Your task to perform on an android device: Do I have any events tomorrow? Image 0: 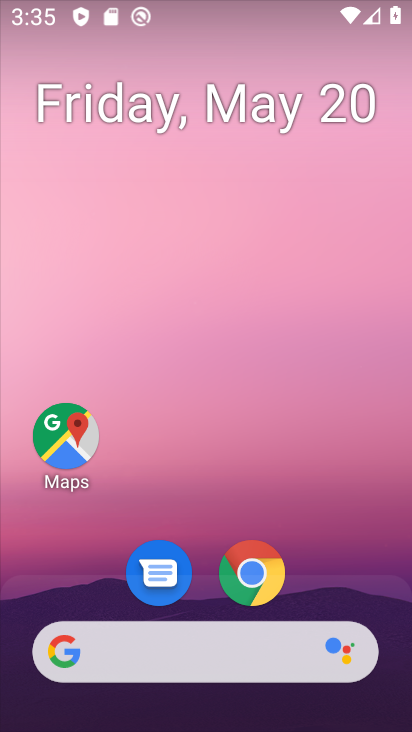
Step 0: drag from (342, 603) to (285, 100)
Your task to perform on an android device: Do I have any events tomorrow? Image 1: 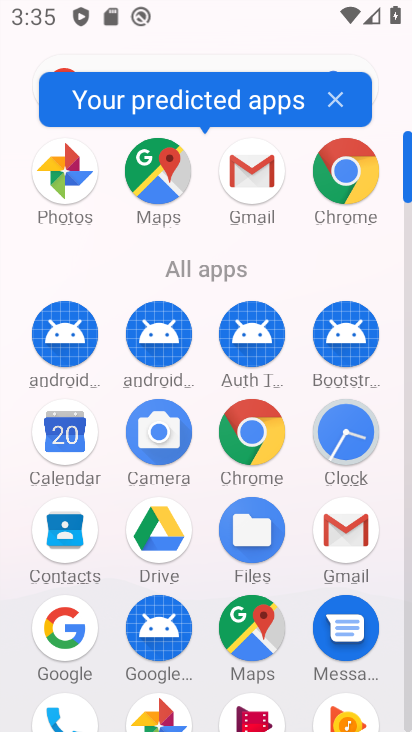
Step 1: click (71, 437)
Your task to perform on an android device: Do I have any events tomorrow? Image 2: 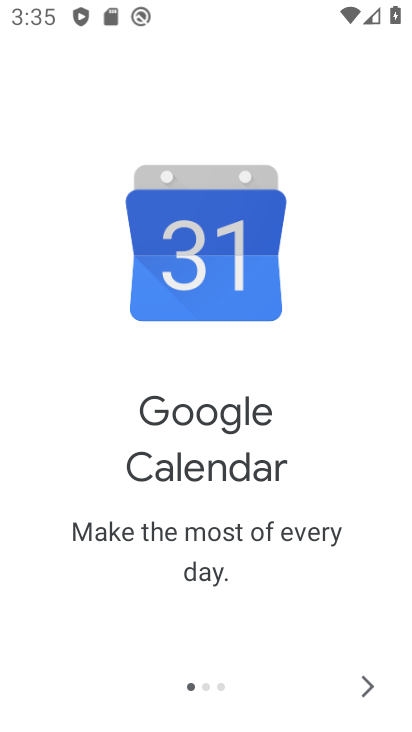
Step 2: click (366, 687)
Your task to perform on an android device: Do I have any events tomorrow? Image 3: 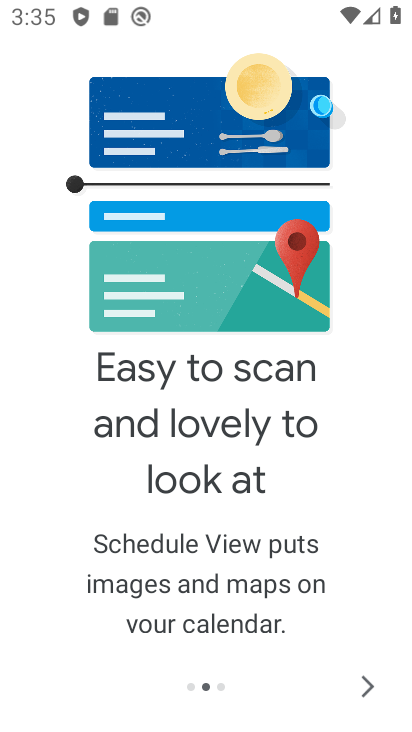
Step 3: click (366, 687)
Your task to perform on an android device: Do I have any events tomorrow? Image 4: 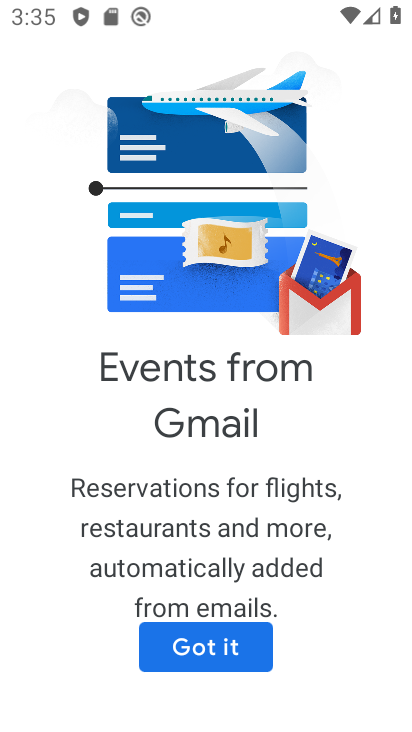
Step 4: click (204, 649)
Your task to perform on an android device: Do I have any events tomorrow? Image 5: 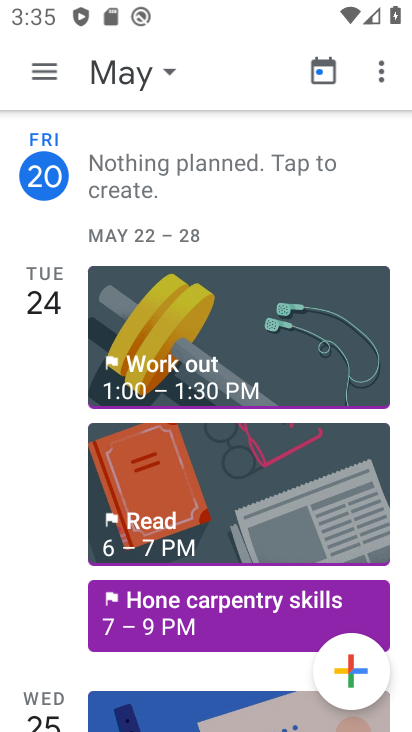
Step 5: click (52, 62)
Your task to perform on an android device: Do I have any events tomorrow? Image 6: 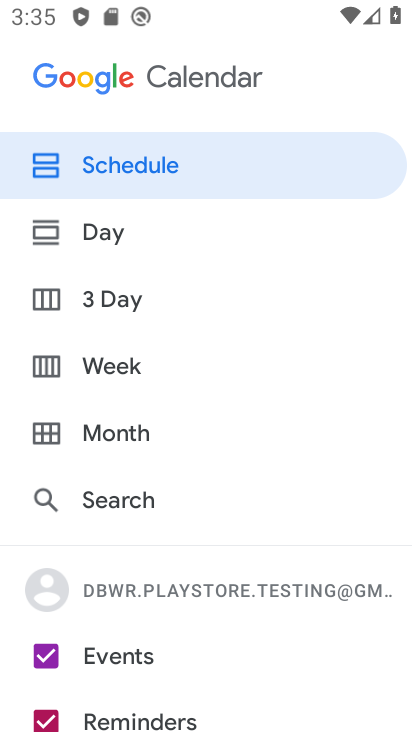
Step 6: drag from (262, 640) to (227, 62)
Your task to perform on an android device: Do I have any events tomorrow? Image 7: 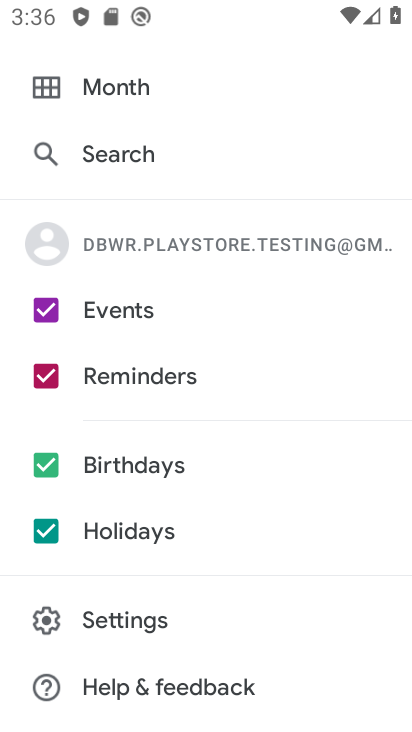
Step 7: click (44, 525)
Your task to perform on an android device: Do I have any events tomorrow? Image 8: 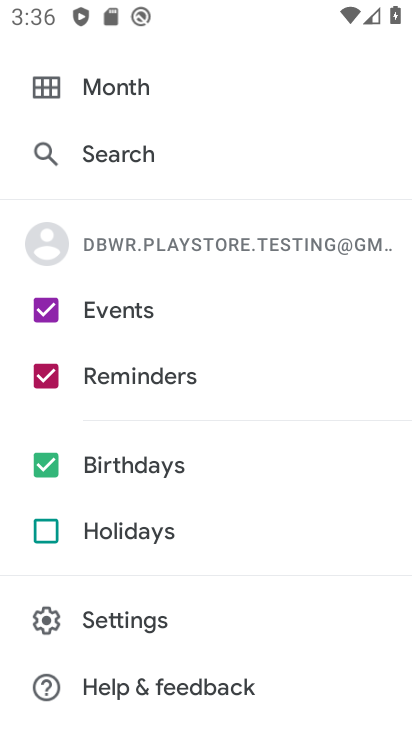
Step 8: click (42, 455)
Your task to perform on an android device: Do I have any events tomorrow? Image 9: 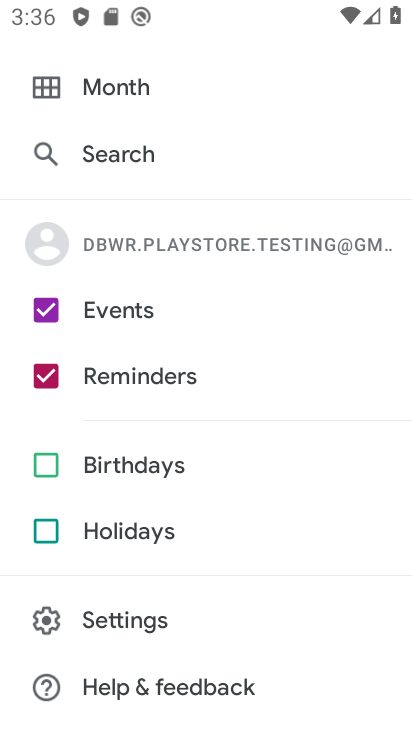
Step 9: click (45, 372)
Your task to perform on an android device: Do I have any events tomorrow? Image 10: 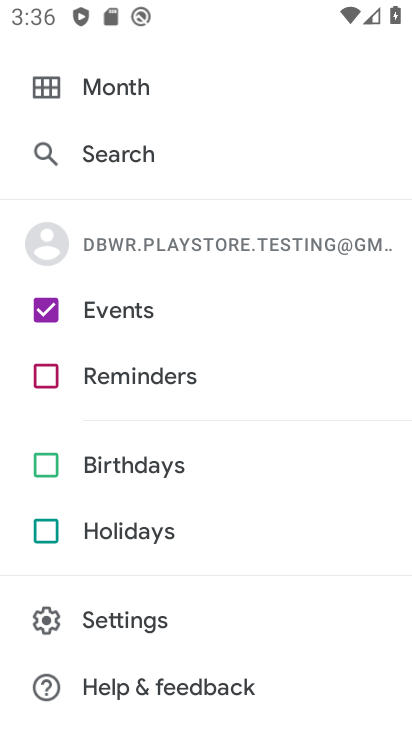
Step 10: drag from (198, 90) to (225, 534)
Your task to perform on an android device: Do I have any events tomorrow? Image 11: 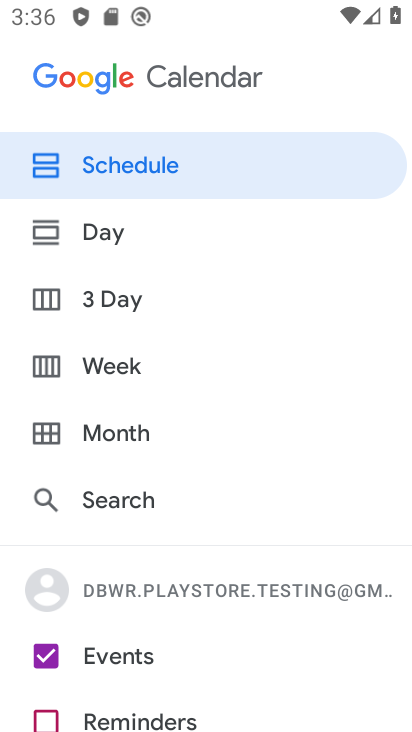
Step 11: click (112, 242)
Your task to perform on an android device: Do I have any events tomorrow? Image 12: 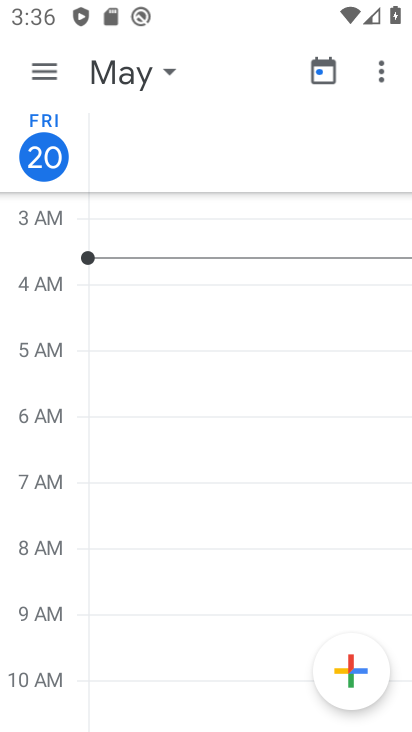
Step 12: click (143, 78)
Your task to perform on an android device: Do I have any events tomorrow? Image 13: 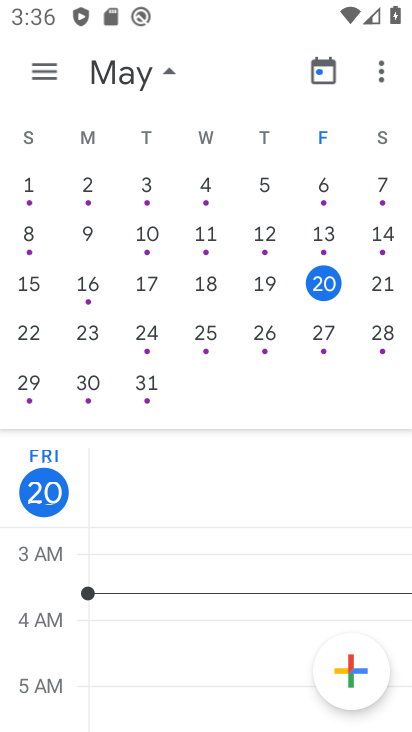
Step 13: click (387, 290)
Your task to perform on an android device: Do I have any events tomorrow? Image 14: 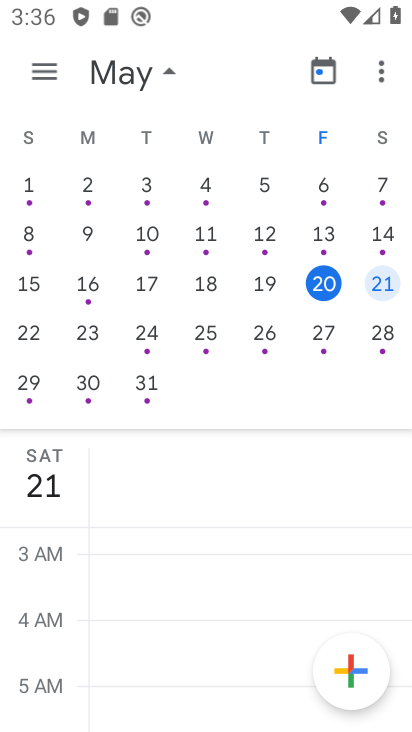
Step 14: click (163, 78)
Your task to perform on an android device: Do I have any events tomorrow? Image 15: 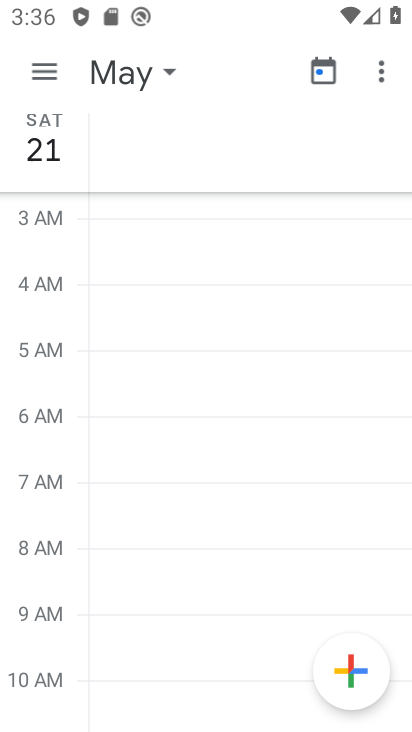
Step 15: task complete